Your task to perform on an android device: turn on notifications settings in the gmail app Image 0: 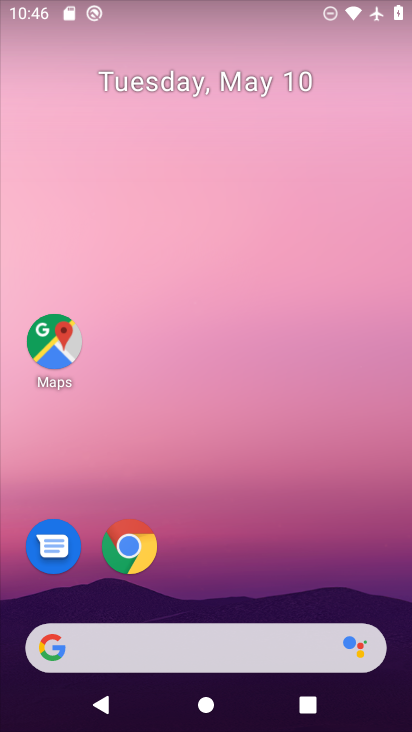
Step 0: drag from (230, 571) to (313, 68)
Your task to perform on an android device: turn on notifications settings in the gmail app Image 1: 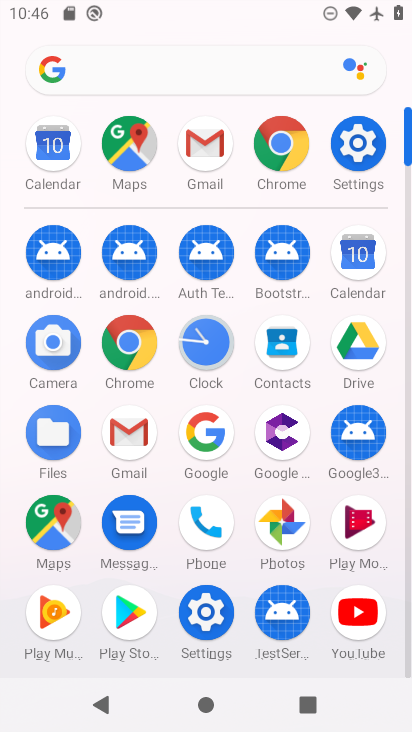
Step 1: click (196, 135)
Your task to perform on an android device: turn on notifications settings in the gmail app Image 2: 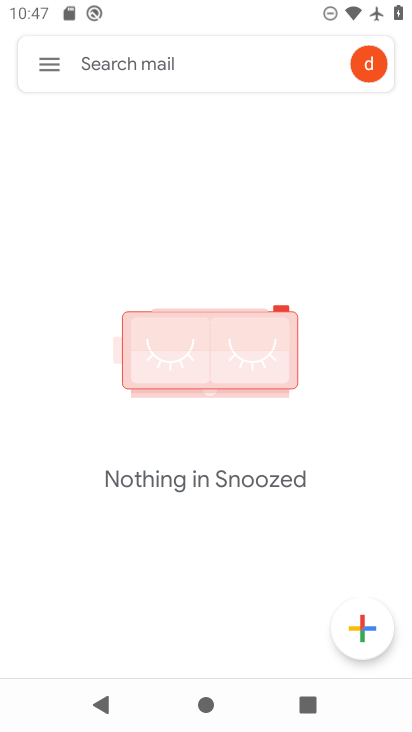
Step 2: click (43, 58)
Your task to perform on an android device: turn on notifications settings in the gmail app Image 3: 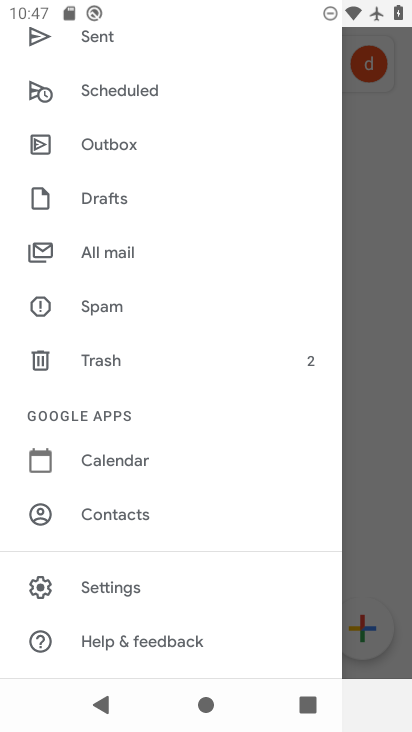
Step 3: click (127, 593)
Your task to perform on an android device: turn on notifications settings in the gmail app Image 4: 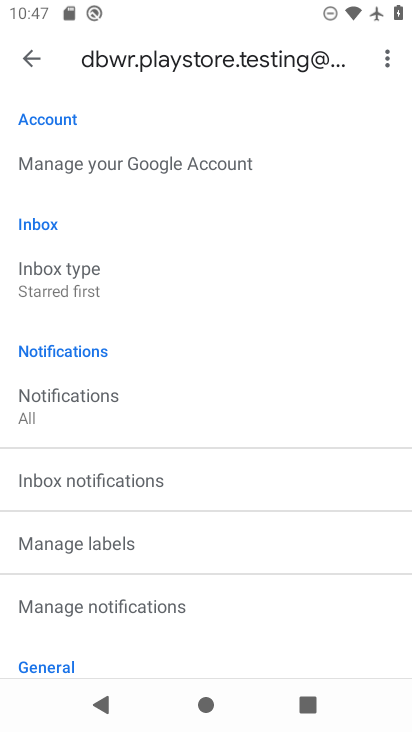
Step 4: click (153, 601)
Your task to perform on an android device: turn on notifications settings in the gmail app Image 5: 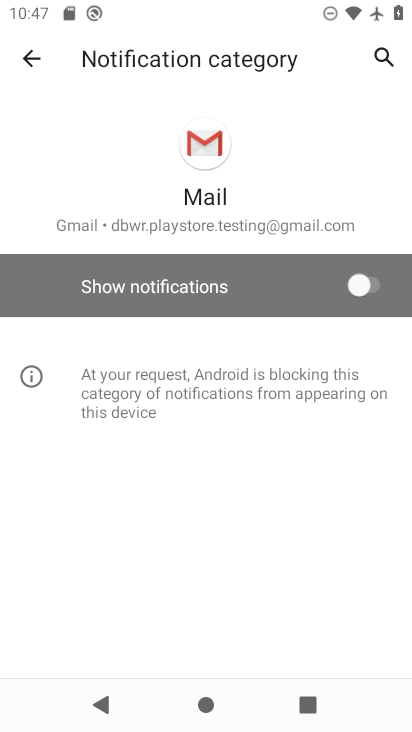
Step 5: click (372, 281)
Your task to perform on an android device: turn on notifications settings in the gmail app Image 6: 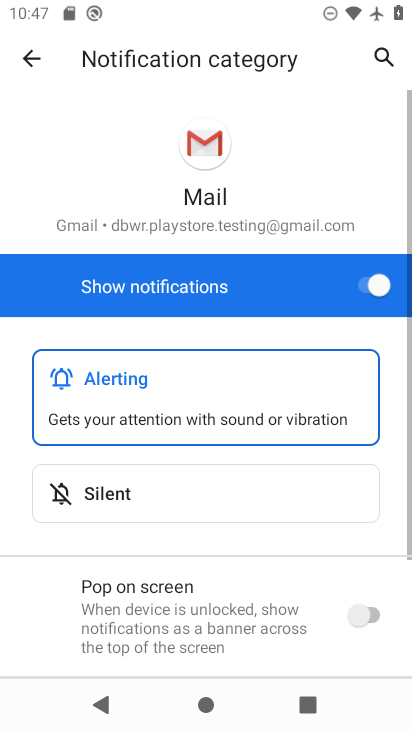
Step 6: task complete